Your task to perform on an android device: read, delete, or share a saved page in the chrome app Image 0: 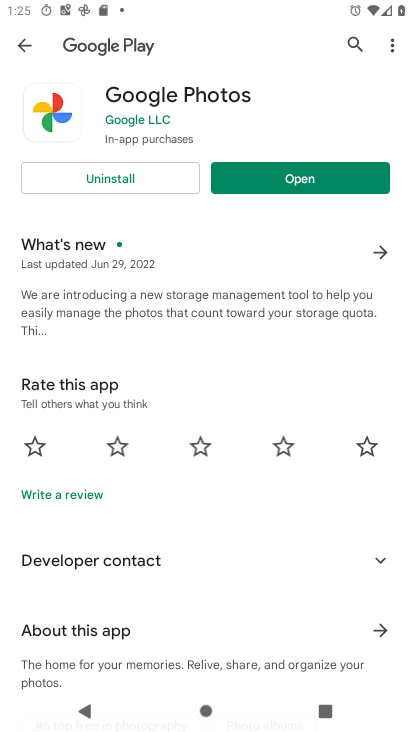
Step 0: press home button
Your task to perform on an android device: read, delete, or share a saved page in the chrome app Image 1: 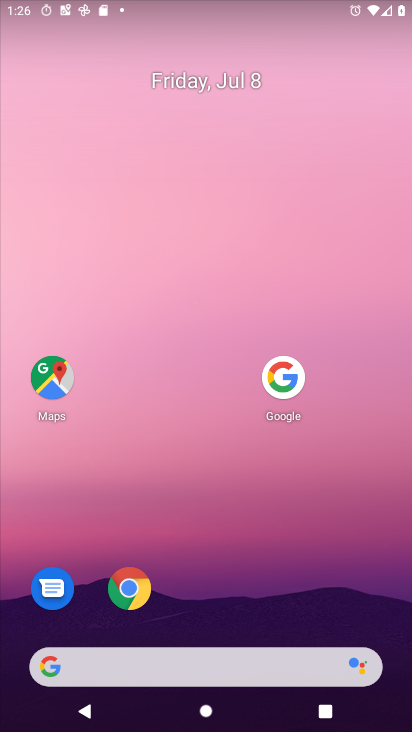
Step 1: click (134, 591)
Your task to perform on an android device: read, delete, or share a saved page in the chrome app Image 2: 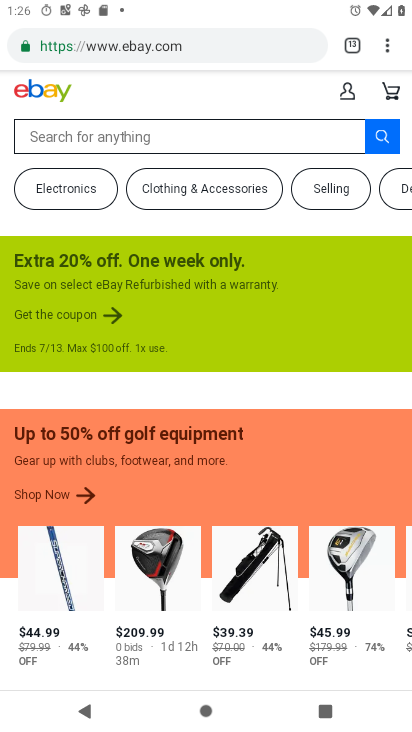
Step 2: drag from (389, 47) to (248, 301)
Your task to perform on an android device: read, delete, or share a saved page in the chrome app Image 3: 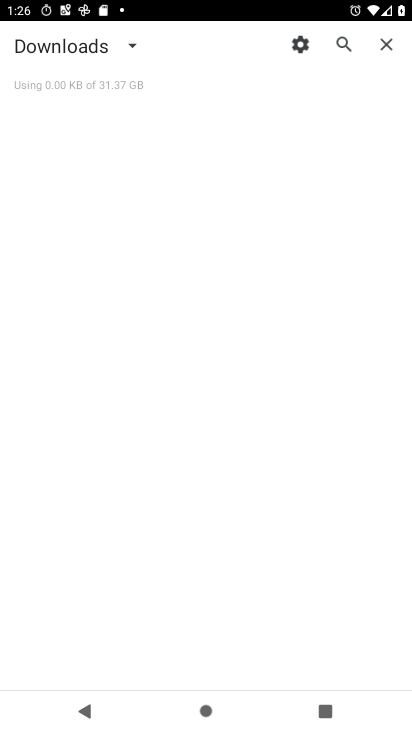
Step 3: click (129, 46)
Your task to perform on an android device: read, delete, or share a saved page in the chrome app Image 4: 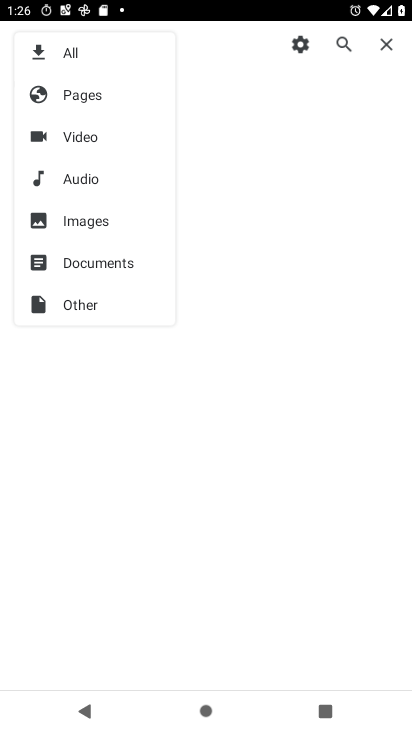
Step 4: click (78, 97)
Your task to perform on an android device: read, delete, or share a saved page in the chrome app Image 5: 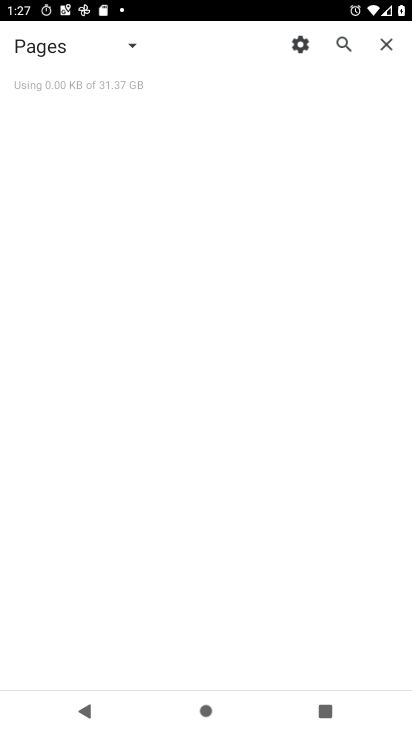
Step 5: task complete